Your task to perform on an android device: Open accessibility settings Image 0: 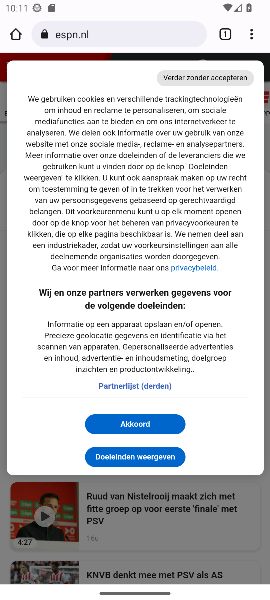
Step 0: press home button
Your task to perform on an android device: Open accessibility settings Image 1: 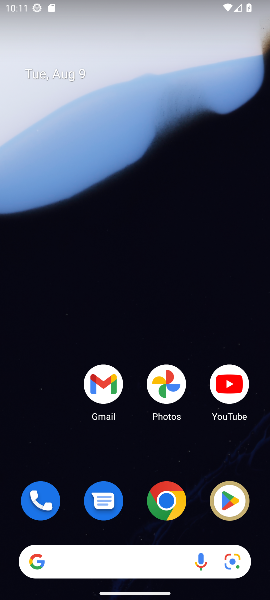
Step 1: drag from (136, 514) to (118, 177)
Your task to perform on an android device: Open accessibility settings Image 2: 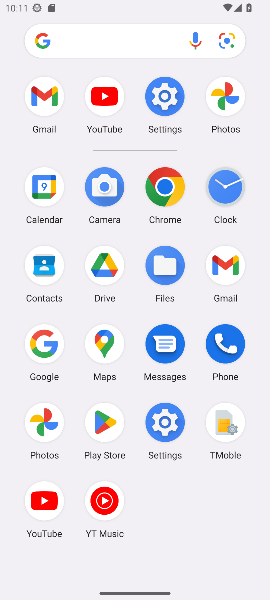
Step 2: click (161, 422)
Your task to perform on an android device: Open accessibility settings Image 3: 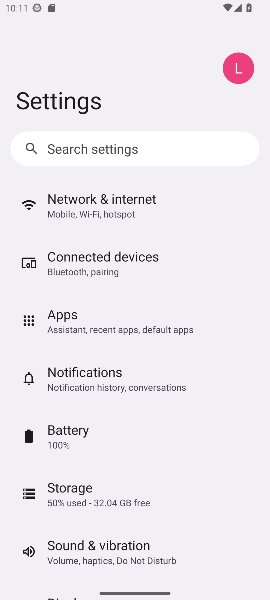
Step 3: drag from (85, 493) to (85, 196)
Your task to perform on an android device: Open accessibility settings Image 4: 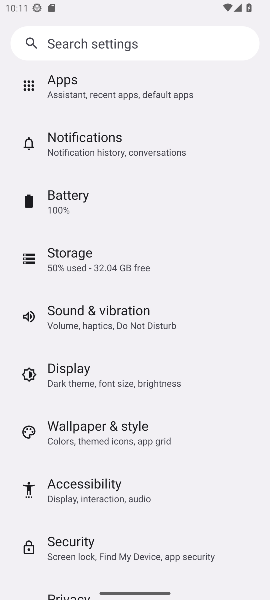
Step 4: click (81, 485)
Your task to perform on an android device: Open accessibility settings Image 5: 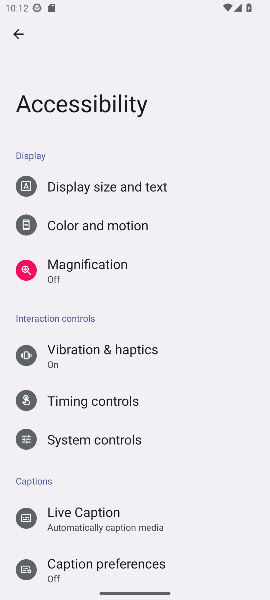
Step 5: task complete